Your task to perform on an android device: open the mobile data screen to see how much data has been used Image 0: 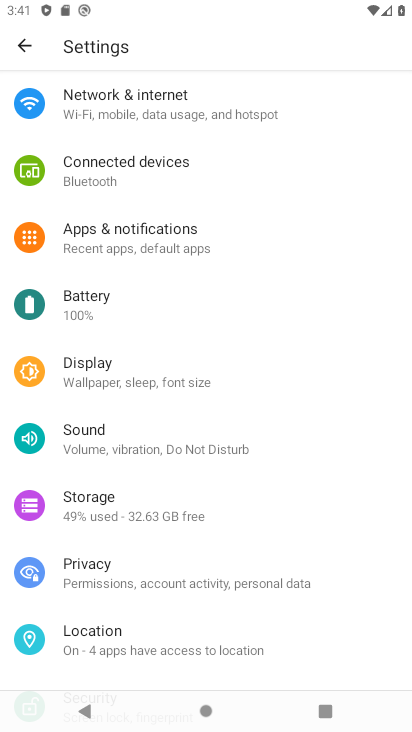
Step 0: press home button
Your task to perform on an android device: open the mobile data screen to see how much data has been used Image 1: 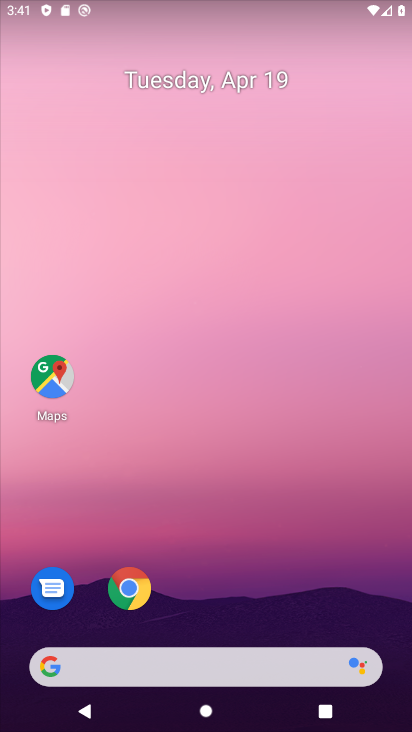
Step 1: drag from (225, 622) to (188, 79)
Your task to perform on an android device: open the mobile data screen to see how much data has been used Image 2: 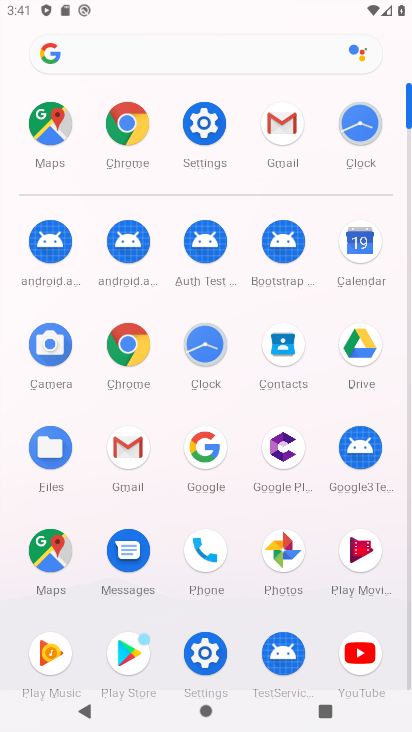
Step 2: click (202, 130)
Your task to perform on an android device: open the mobile data screen to see how much data has been used Image 3: 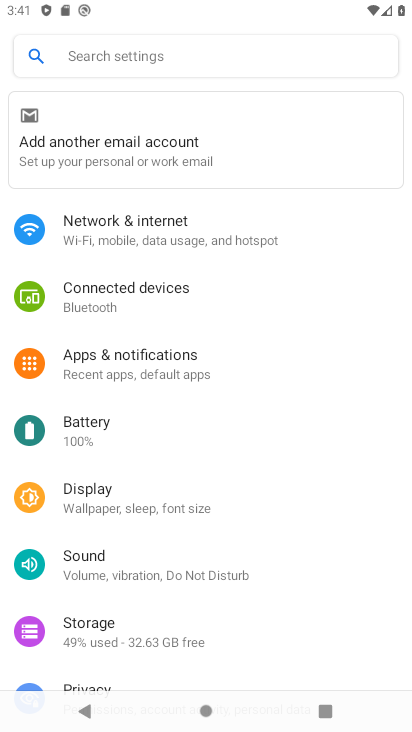
Step 3: click (169, 236)
Your task to perform on an android device: open the mobile data screen to see how much data has been used Image 4: 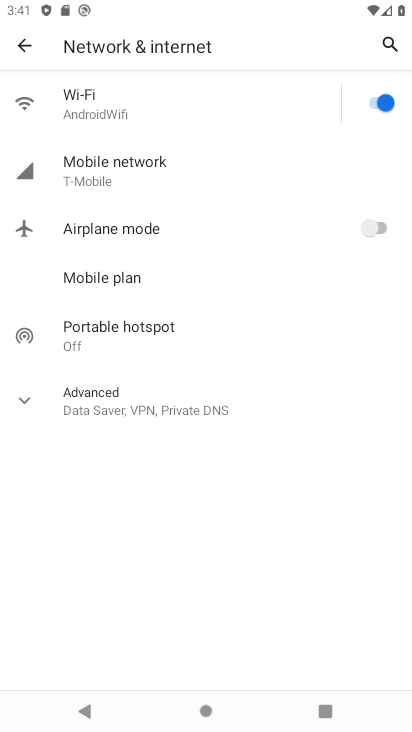
Step 4: click (127, 160)
Your task to perform on an android device: open the mobile data screen to see how much data has been used Image 5: 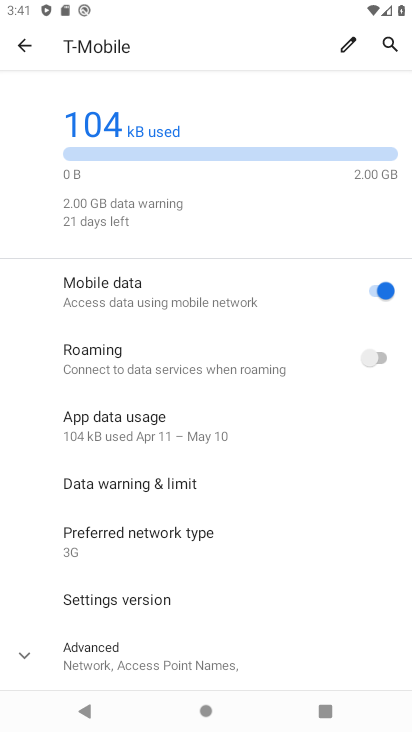
Step 5: task complete